Your task to perform on an android device: Open Google Image 0: 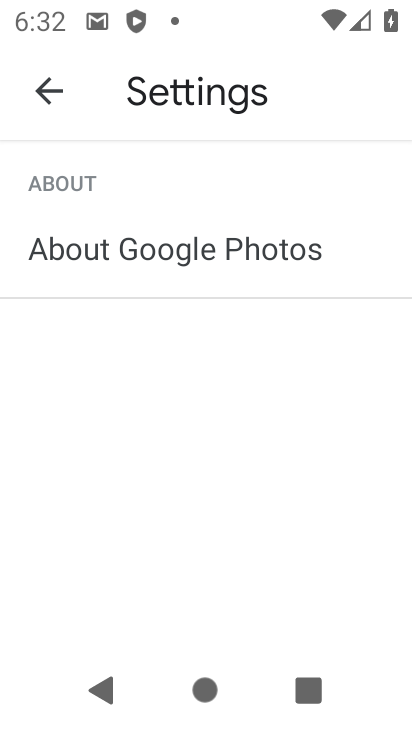
Step 0: press home button
Your task to perform on an android device: Open Google Image 1: 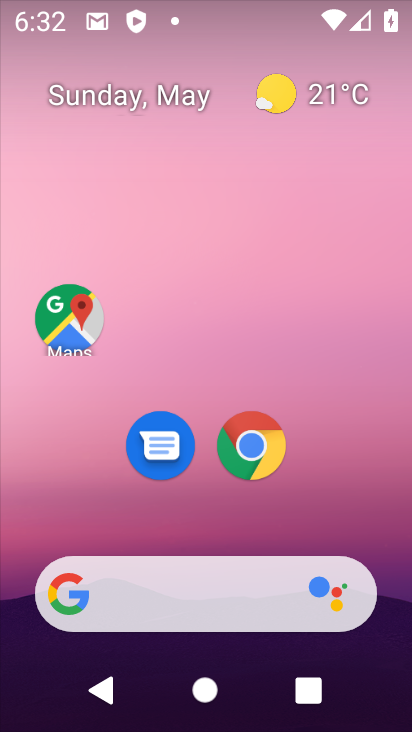
Step 1: click (74, 590)
Your task to perform on an android device: Open Google Image 2: 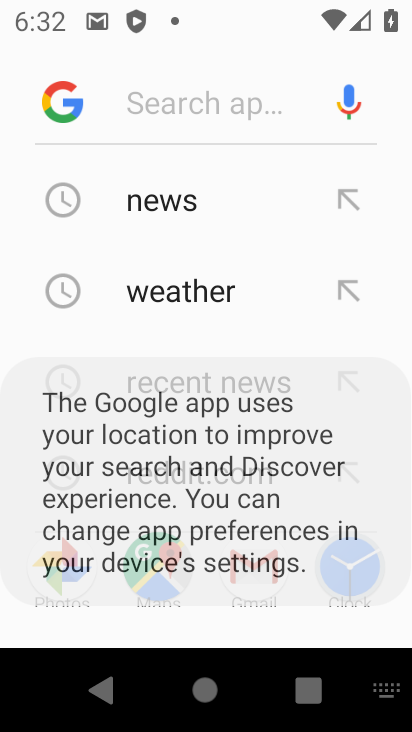
Step 2: task complete